Your task to perform on an android device: What is the news today? Image 0: 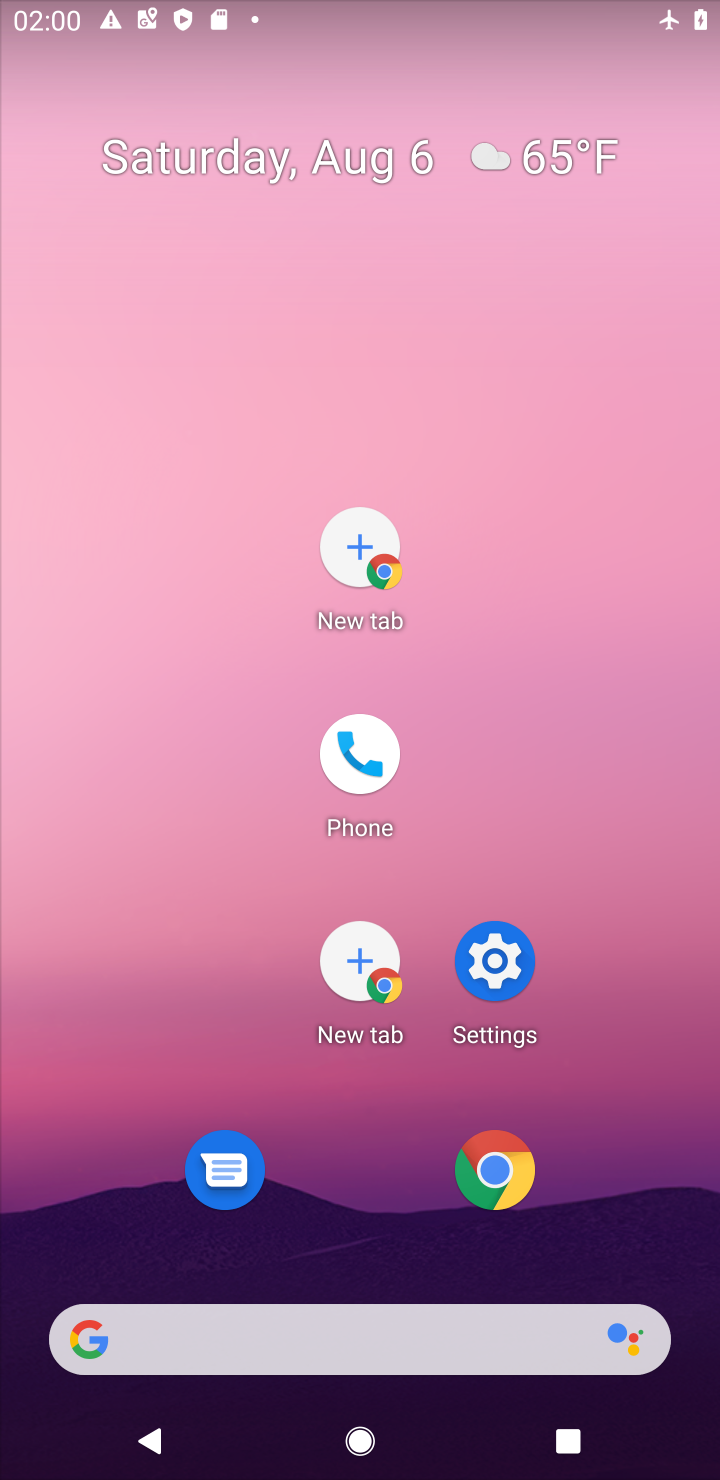
Step 0: click (340, 1360)
Your task to perform on an android device: What is the news today? Image 1: 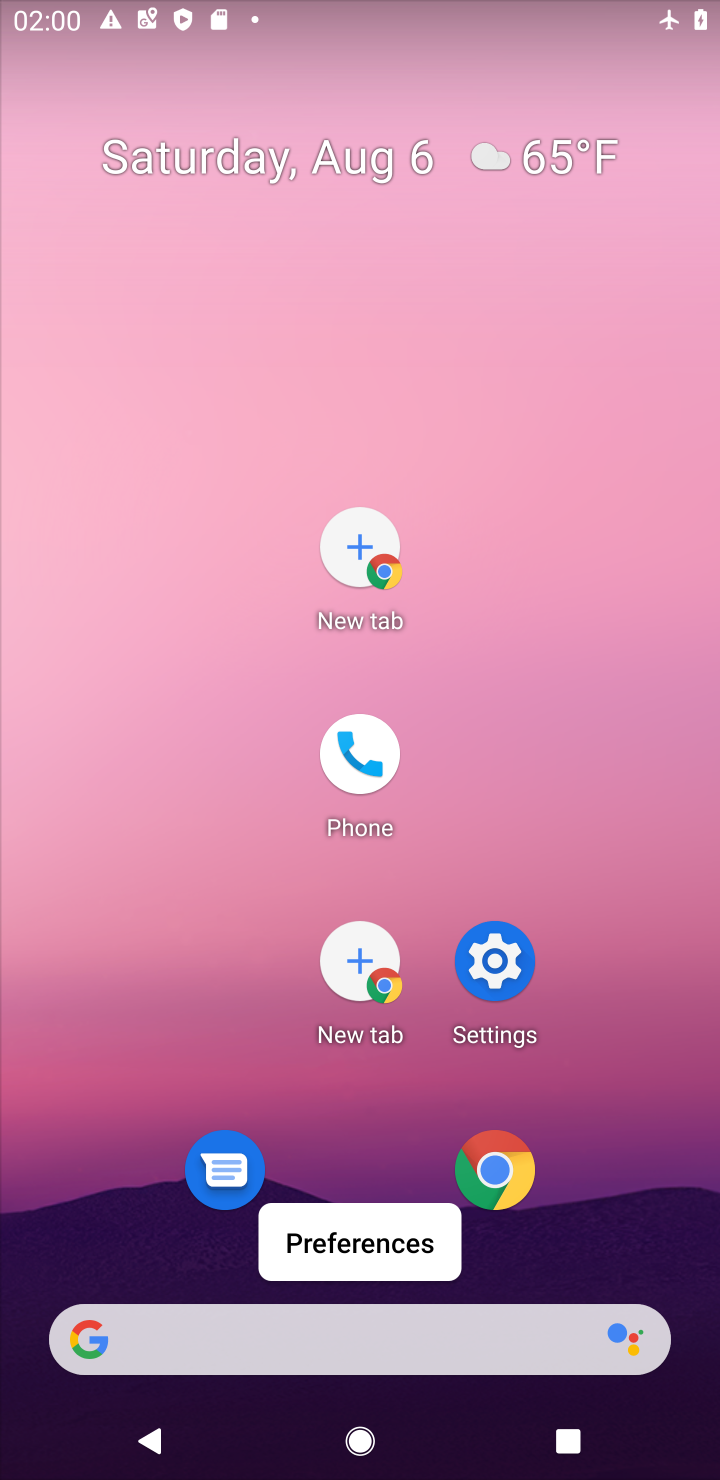
Step 1: click (380, 1329)
Your task to perform on an android device: What is the news today? Image 2: 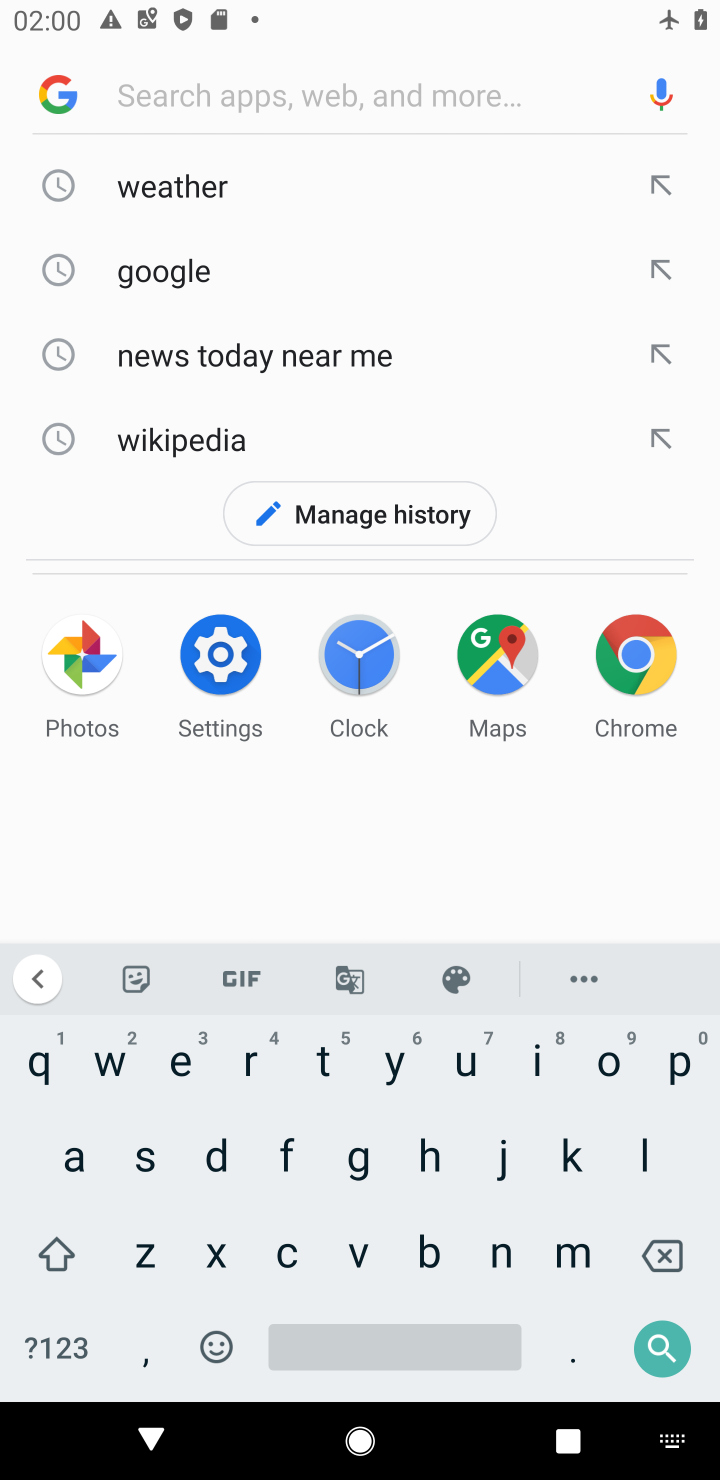
Step 2: click (316, 1062)
Your task to perform on an android device: What is the news today? Image 3: 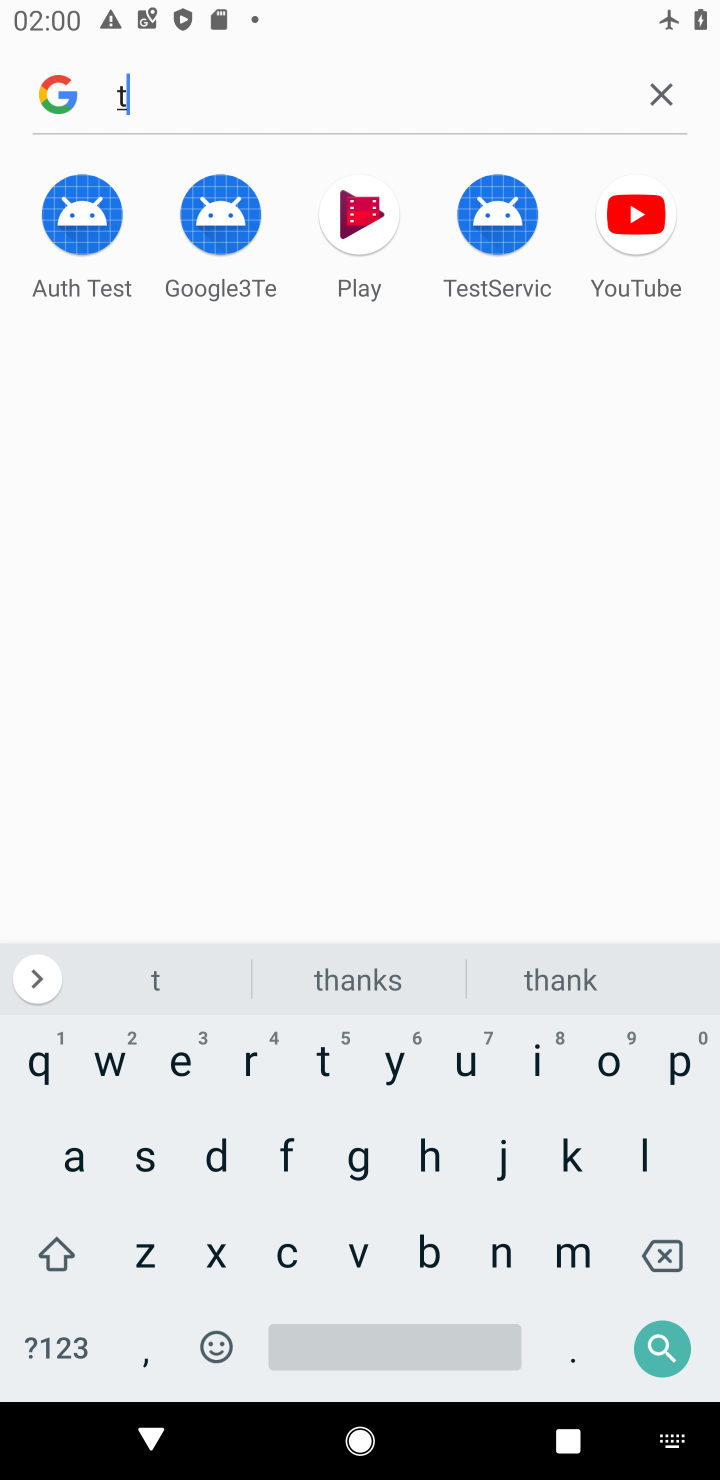
Step 3: click (615, 1056)
Your task to perform on an android device: What is the news today? Image 4: 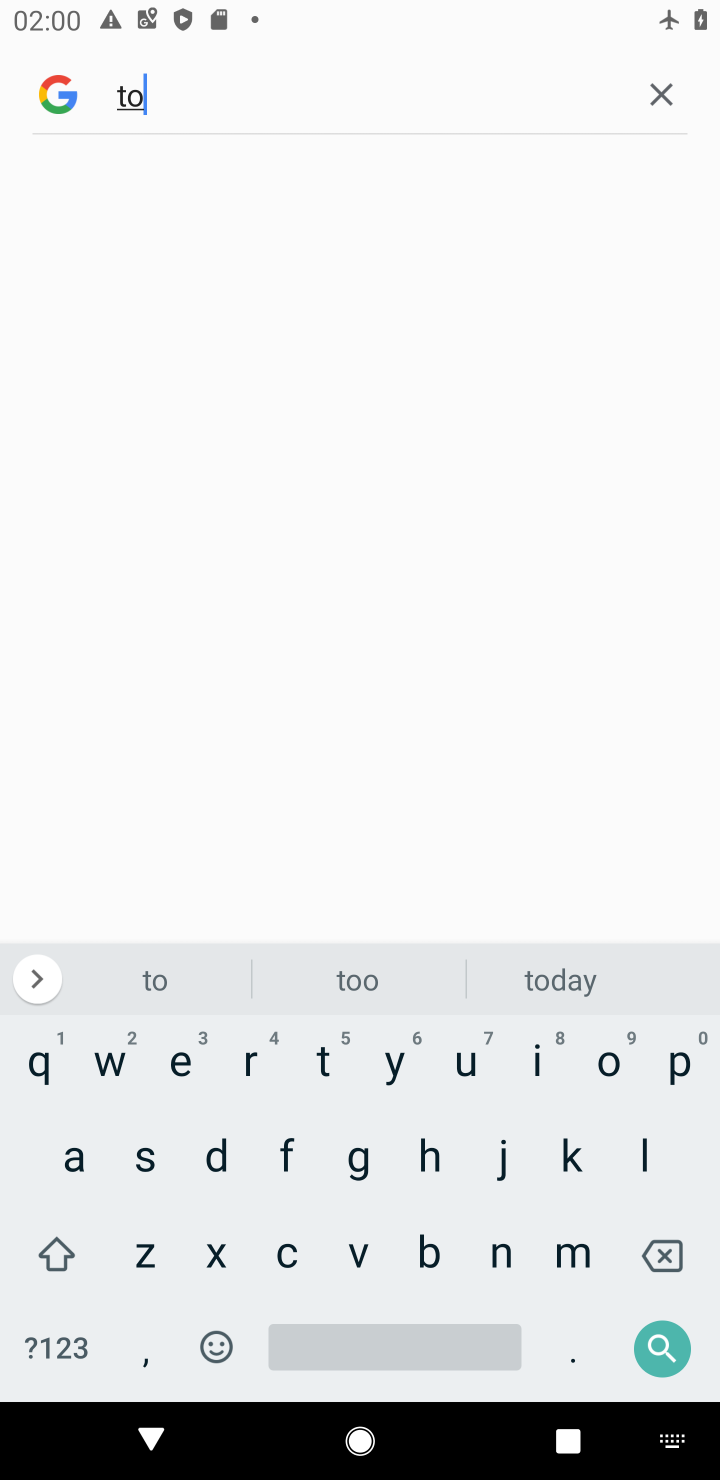
Step 4: click (222, 1160)
Your task to perform on an android device: What is the news today? Image 5: 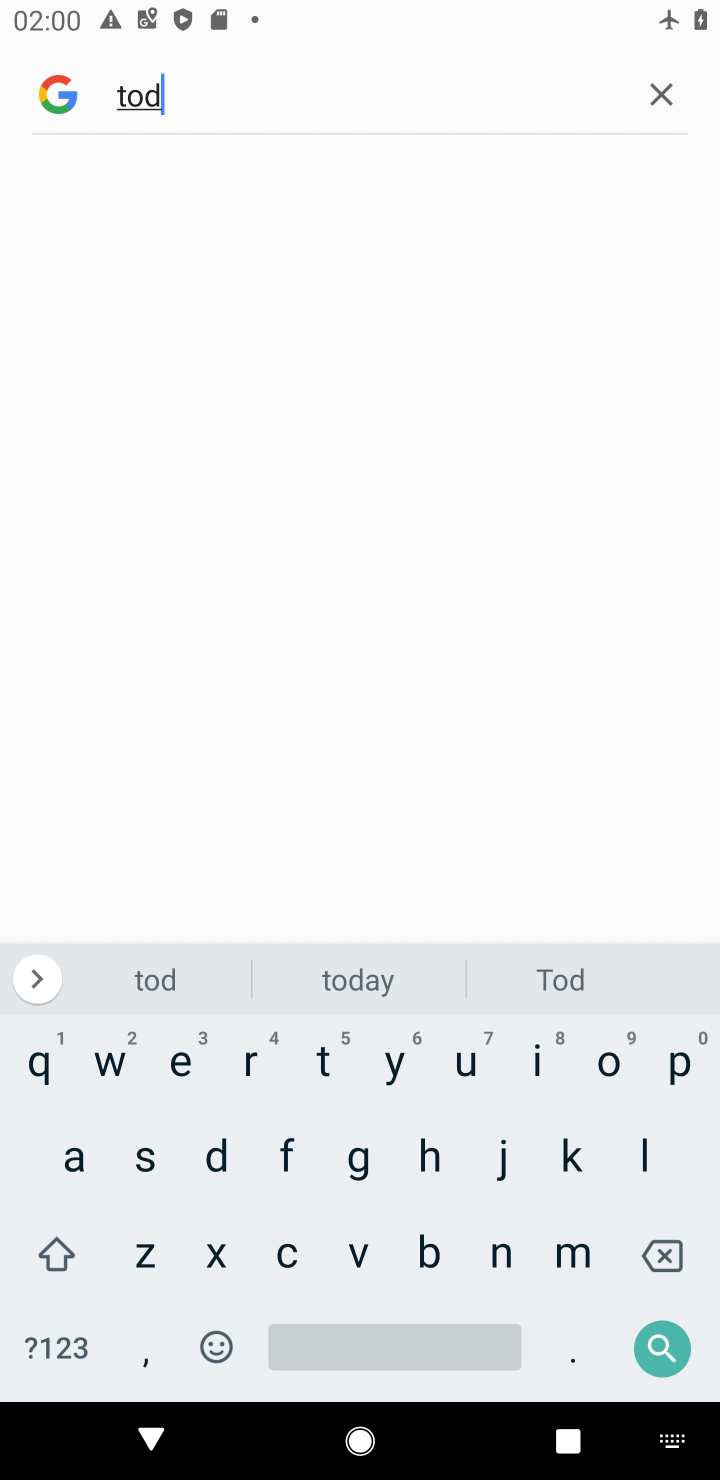
Step 5: click (67, 1145)
Your task to perform on an android device: What is the news today? Image 6: 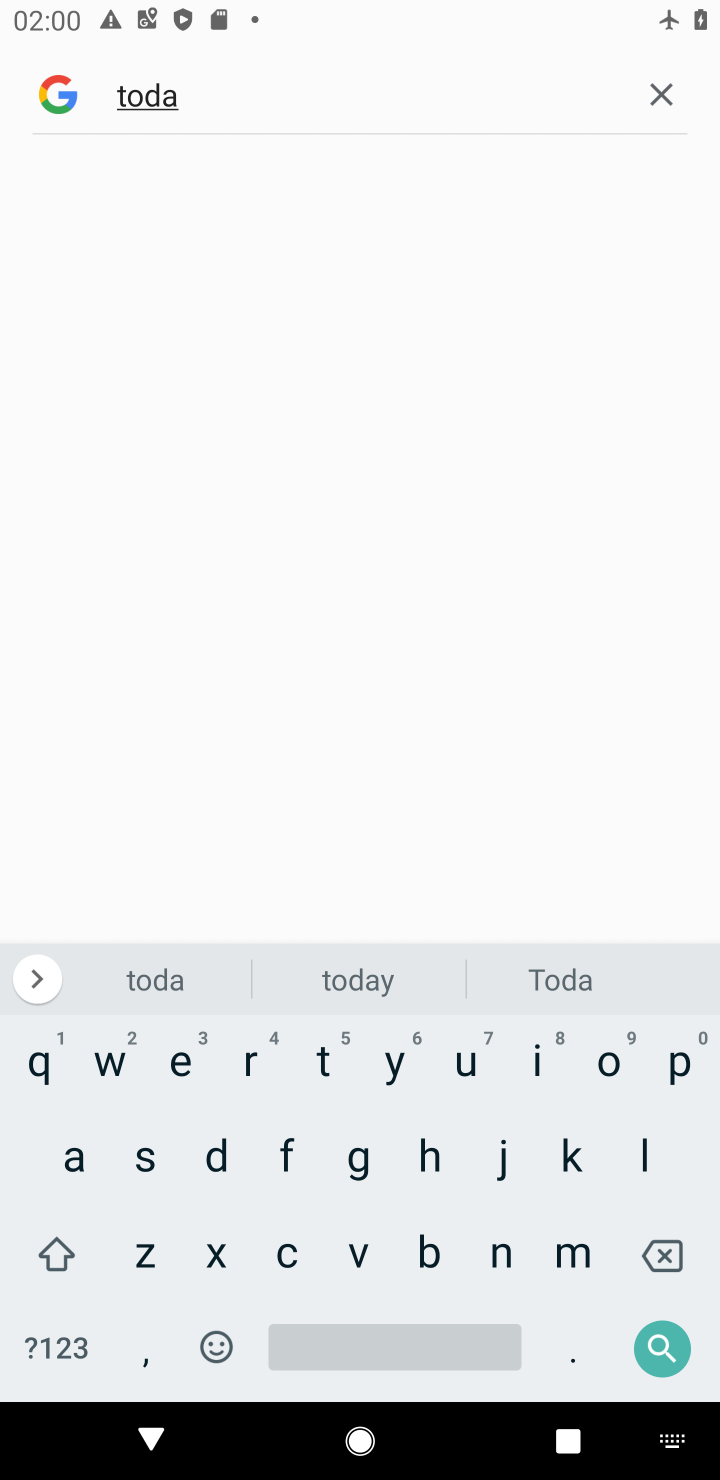
Step 6: click (394, 1064)
Your task to perform on an android device: What is the news today? Image 7: 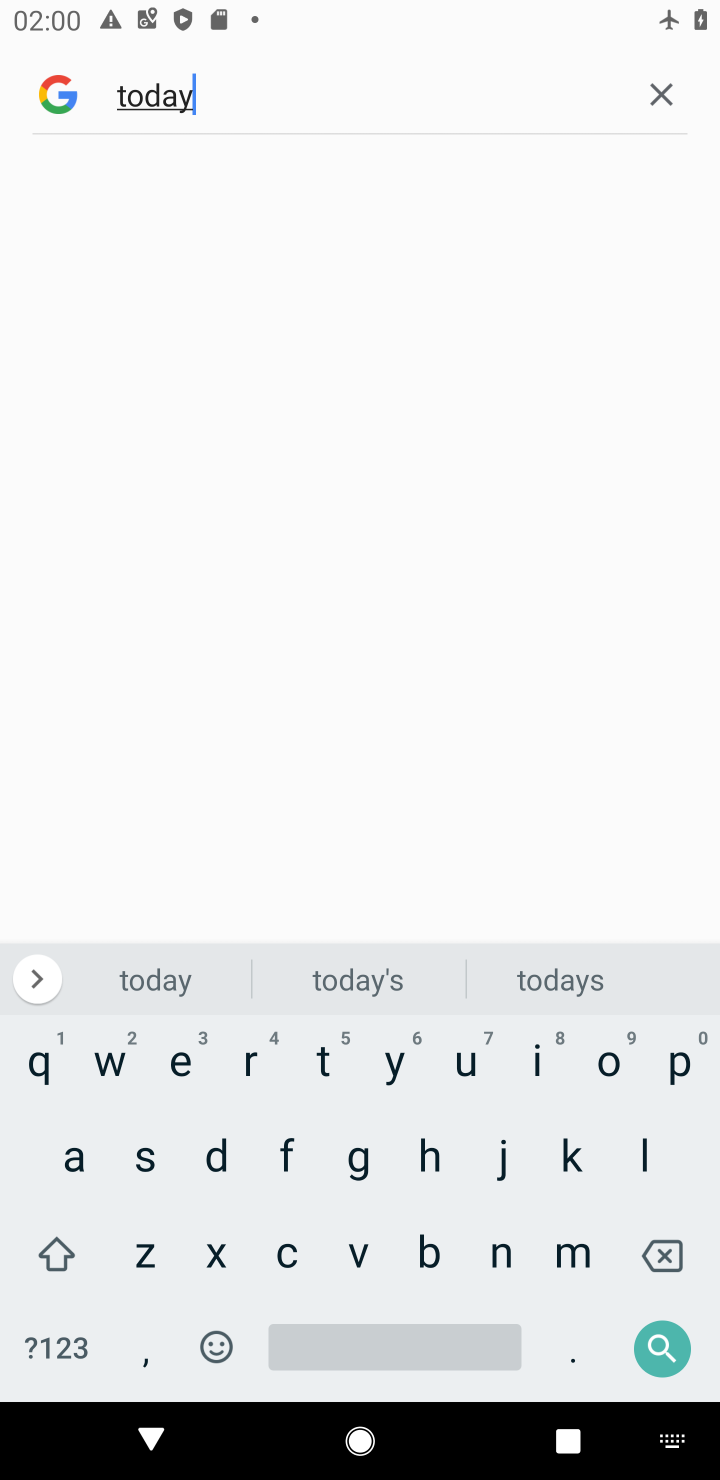
Step 7: click (454, 1334)
Your task to perform on an android device: What is the news today? Image 8: 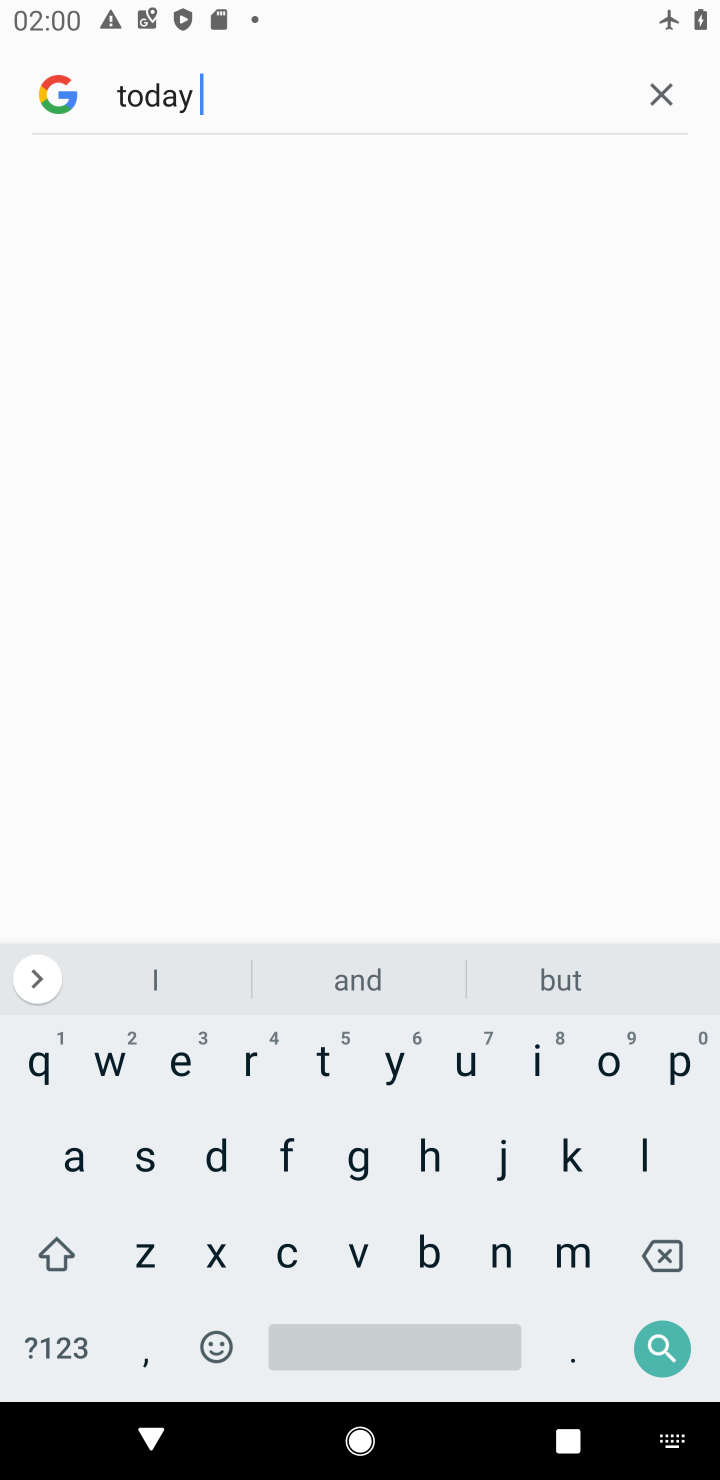
Step 8: click (504, 1260)
Your task to perform on an android device: What is the news today? Image 9: 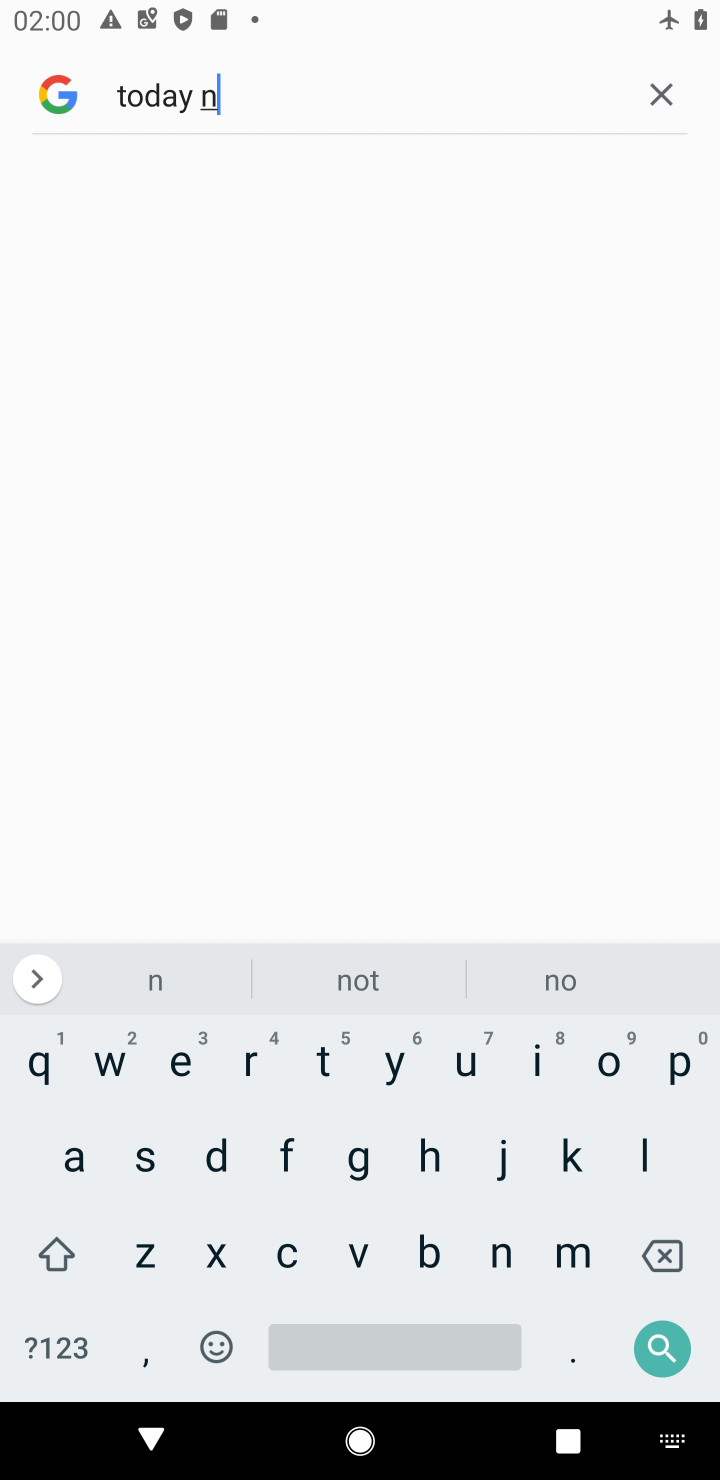
Step 9: click (187, 1072)
Your task to perform on an android device: What is the news today? Image 10: 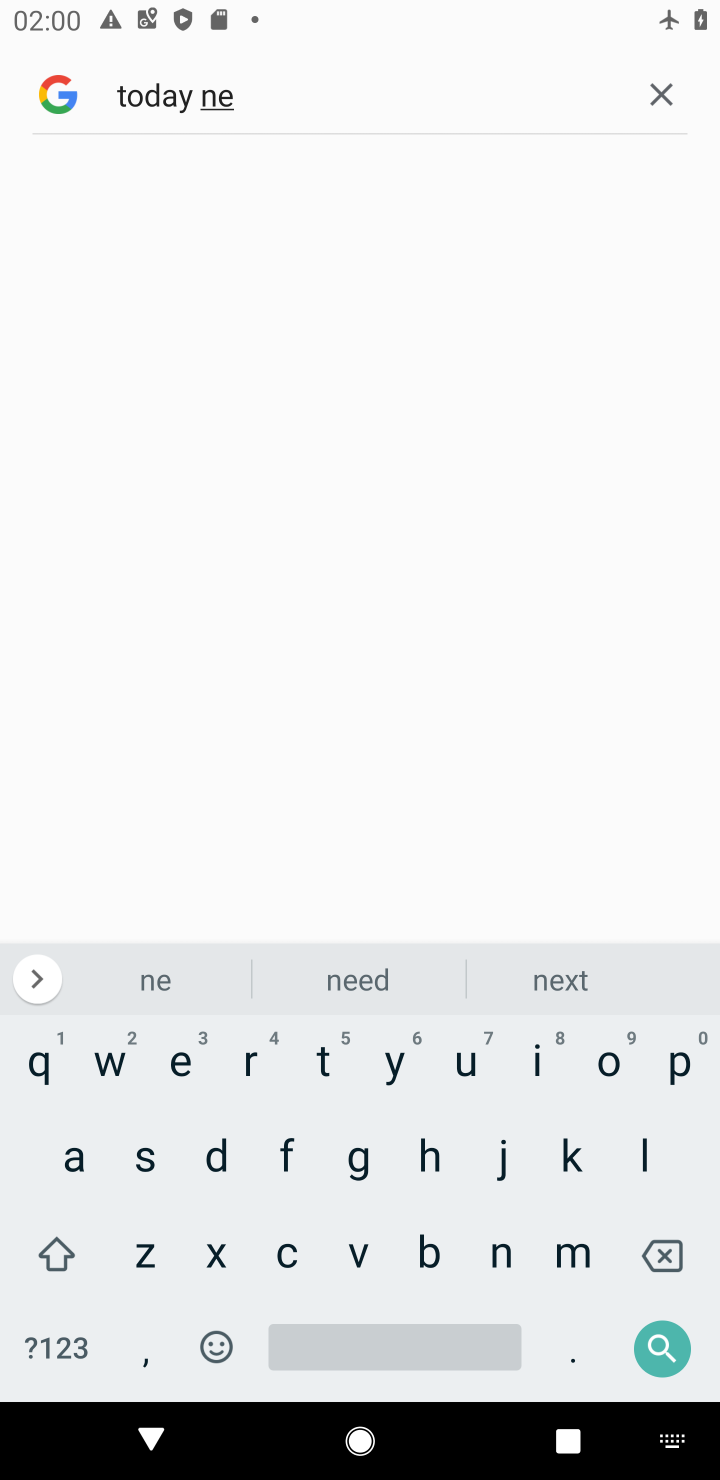
Step 10: click (114, 1048)
Your task to perform on an android device: What is the news today? Image 11: 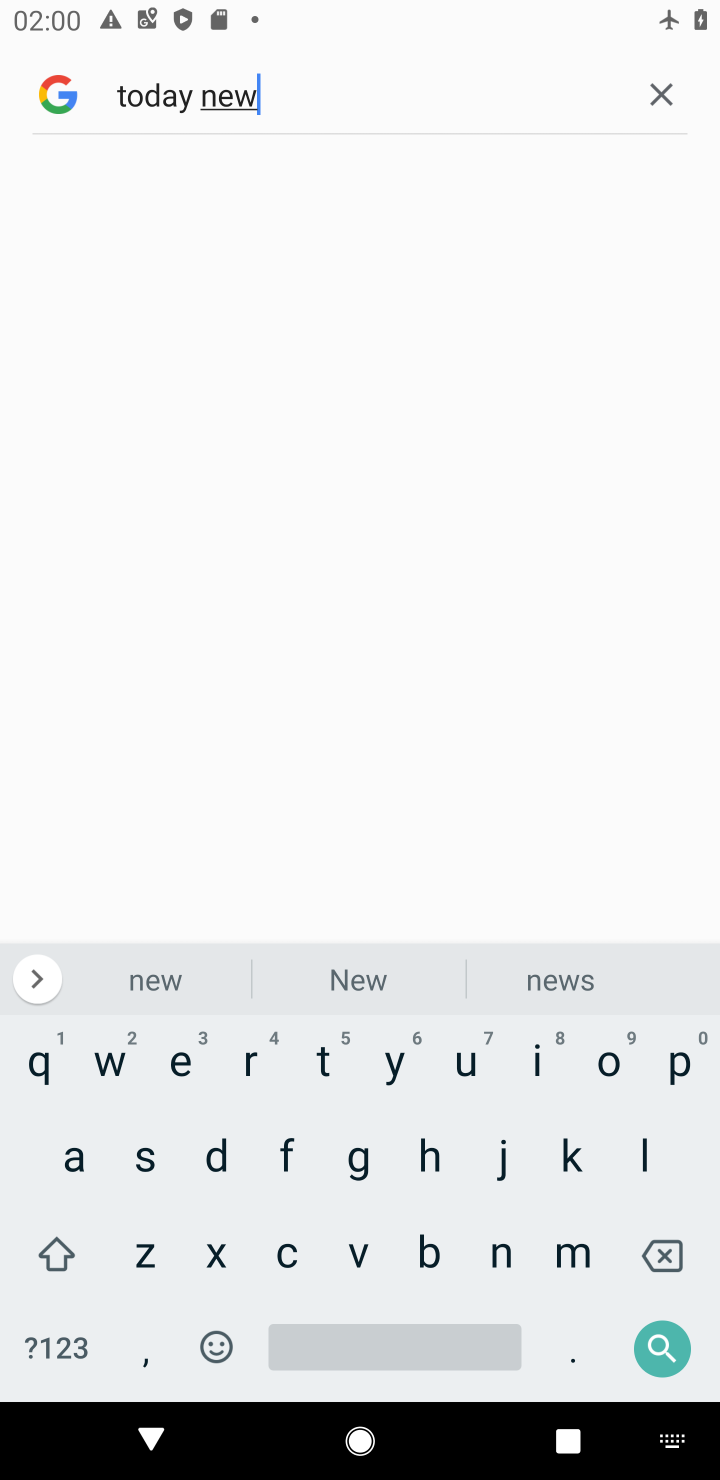
Step 11: click (150, 1144)
Your task to perform on an android device: What is the news today? Image 12: 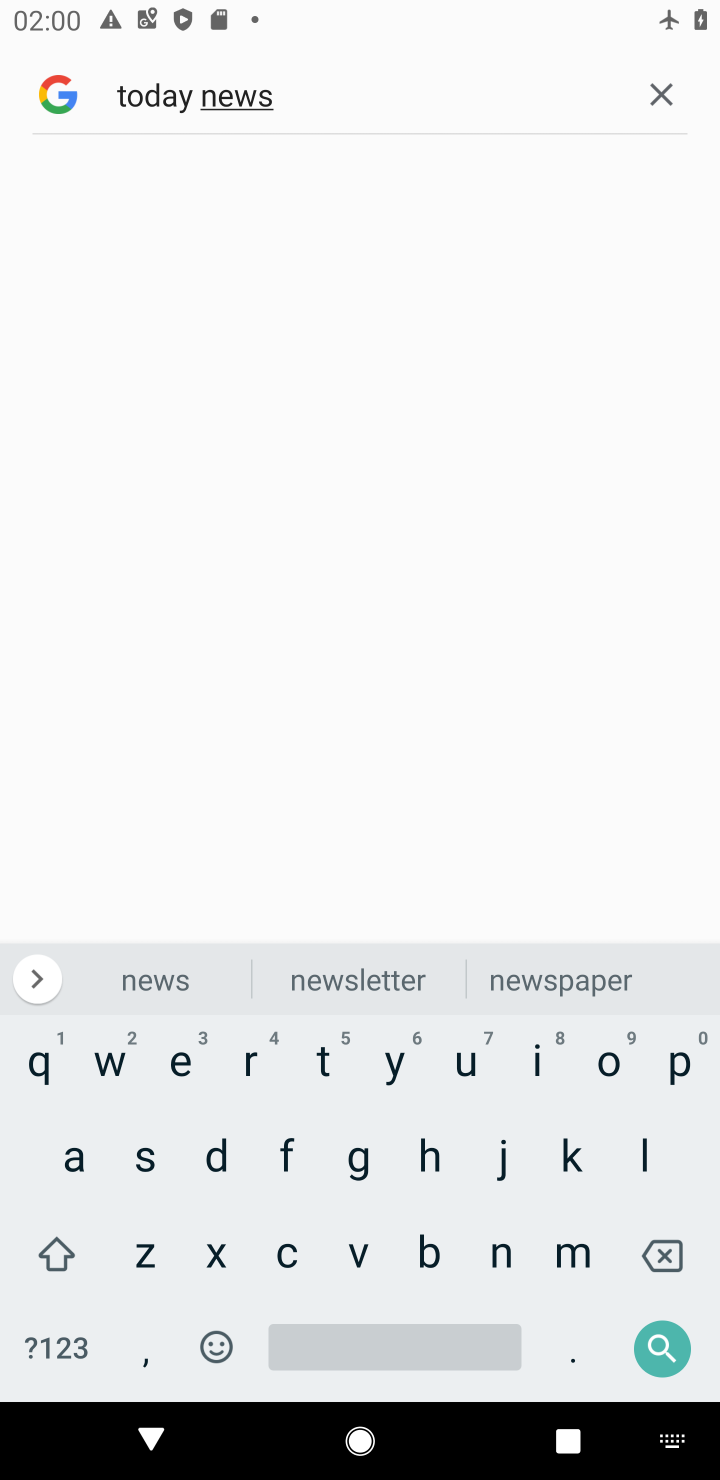
Step 12: click (649, 1355)
Your task to perform on an android device: What is the news today? Image 13: 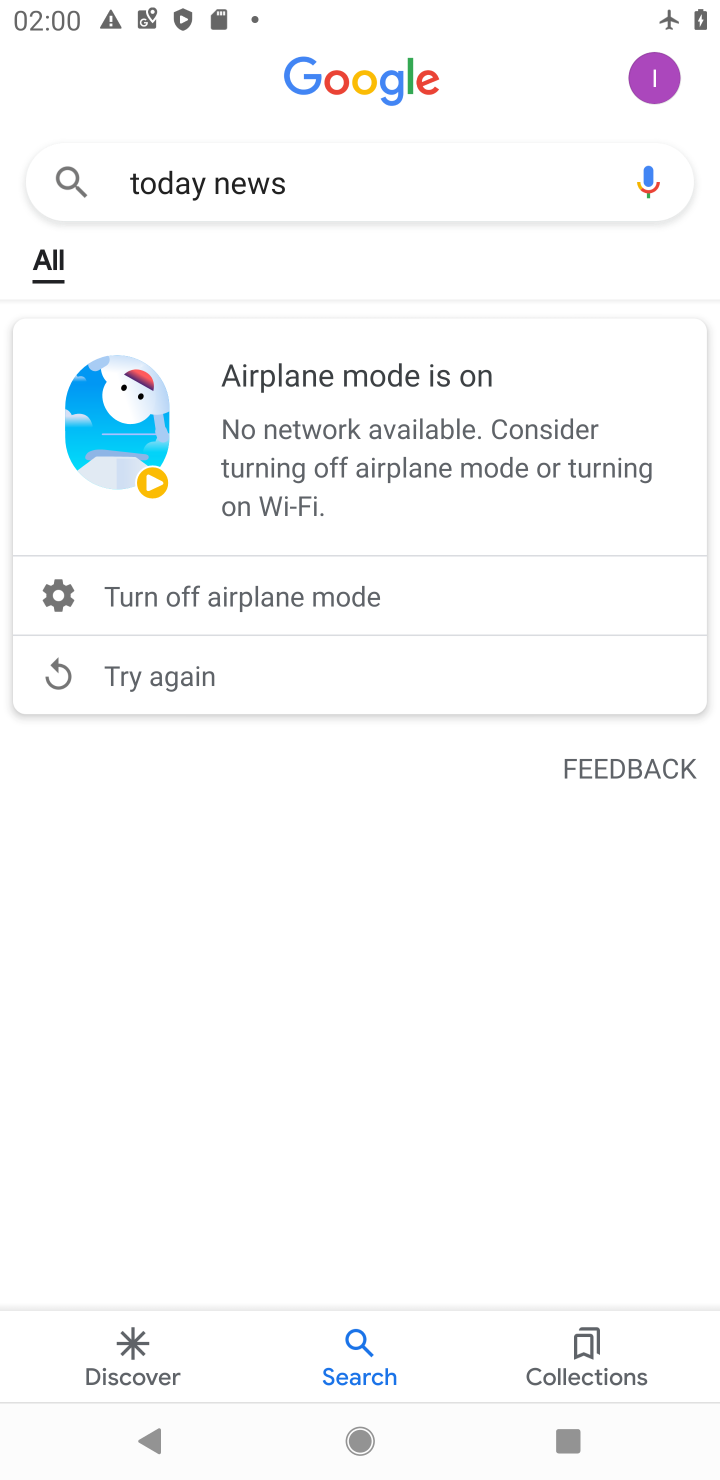
Step 13: click (668, 9)
Your task to perform on an android device: What is the news today? Image 14: 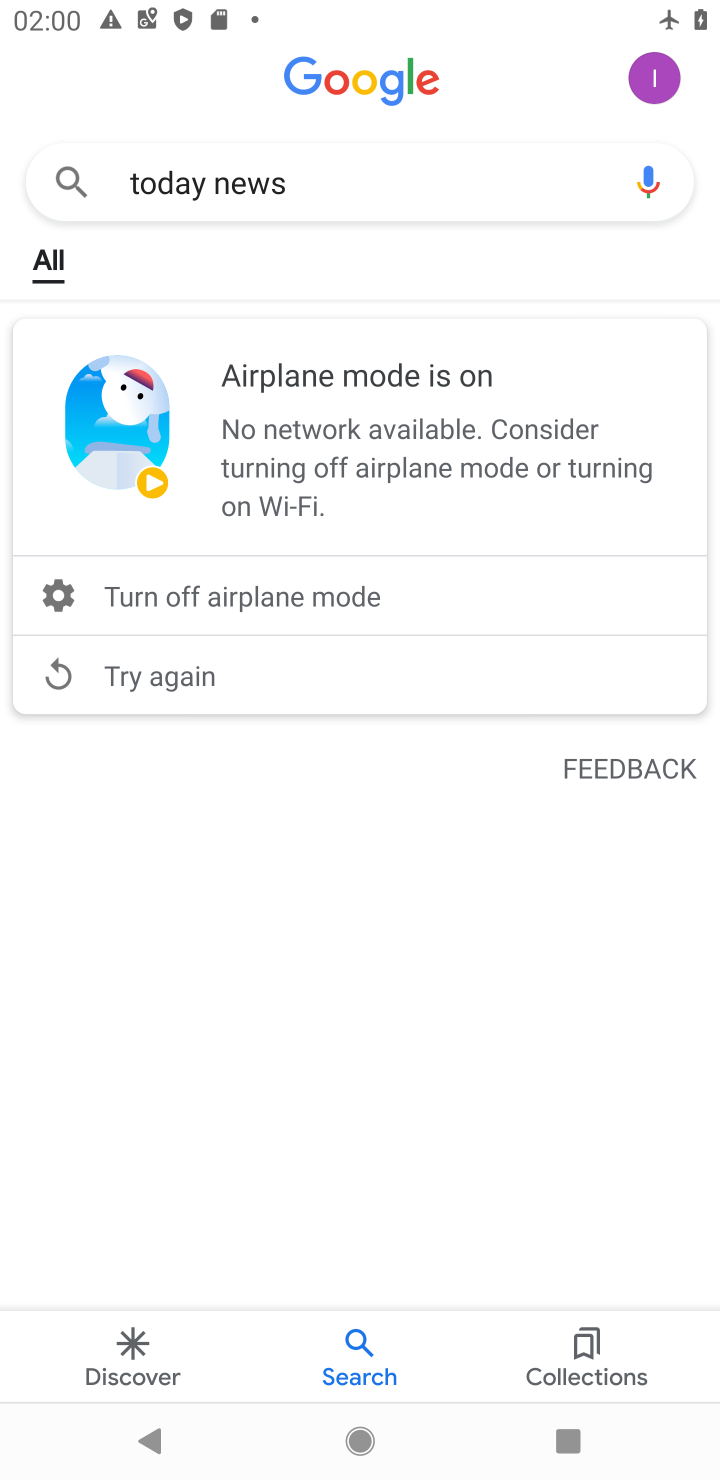
Step 14: click (672, 13)
Your task to perform on an android device: What is the news today? Image 15: 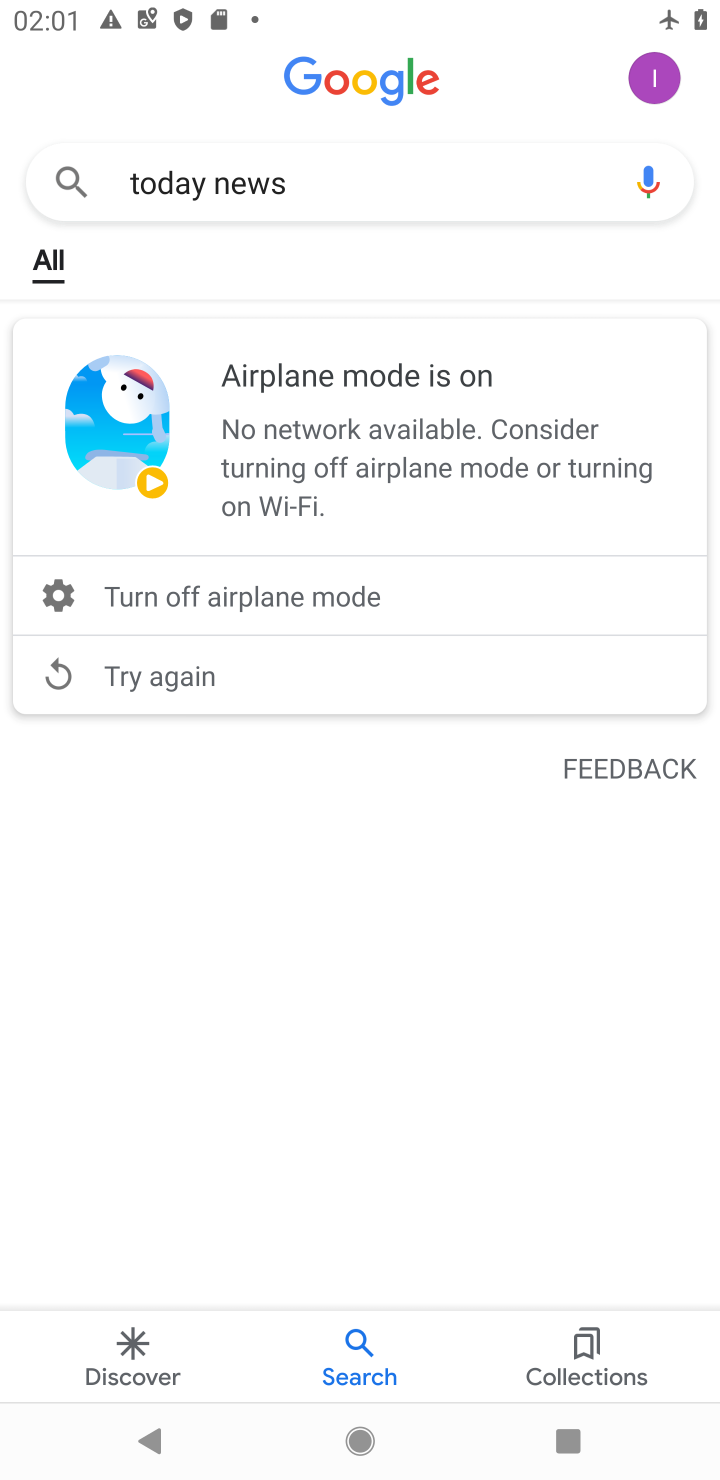
Step 15: click (280, 904)
Your task to perform on an android device: What is the news today? Image 16: 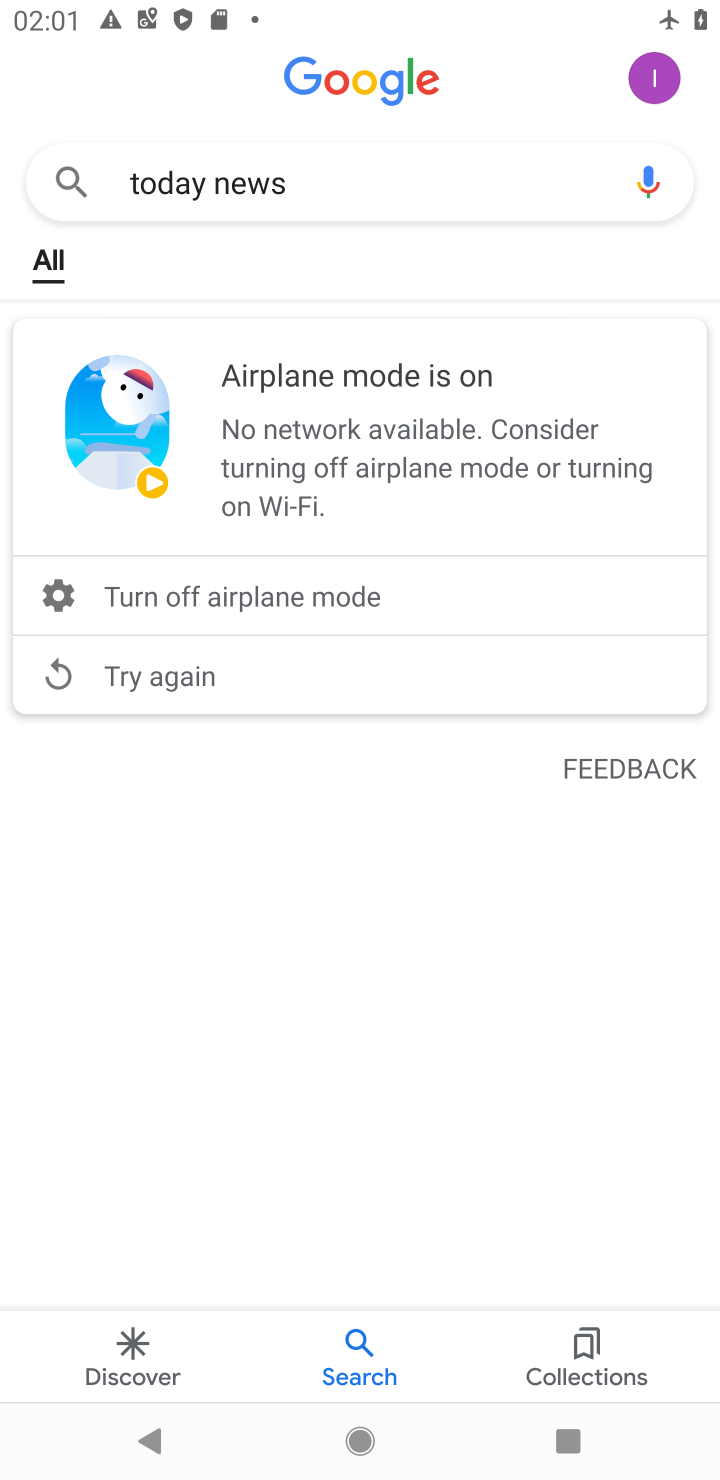
Step 16: click (324, 601)
Your task to perform on an android device: What is the news today? Image 17: 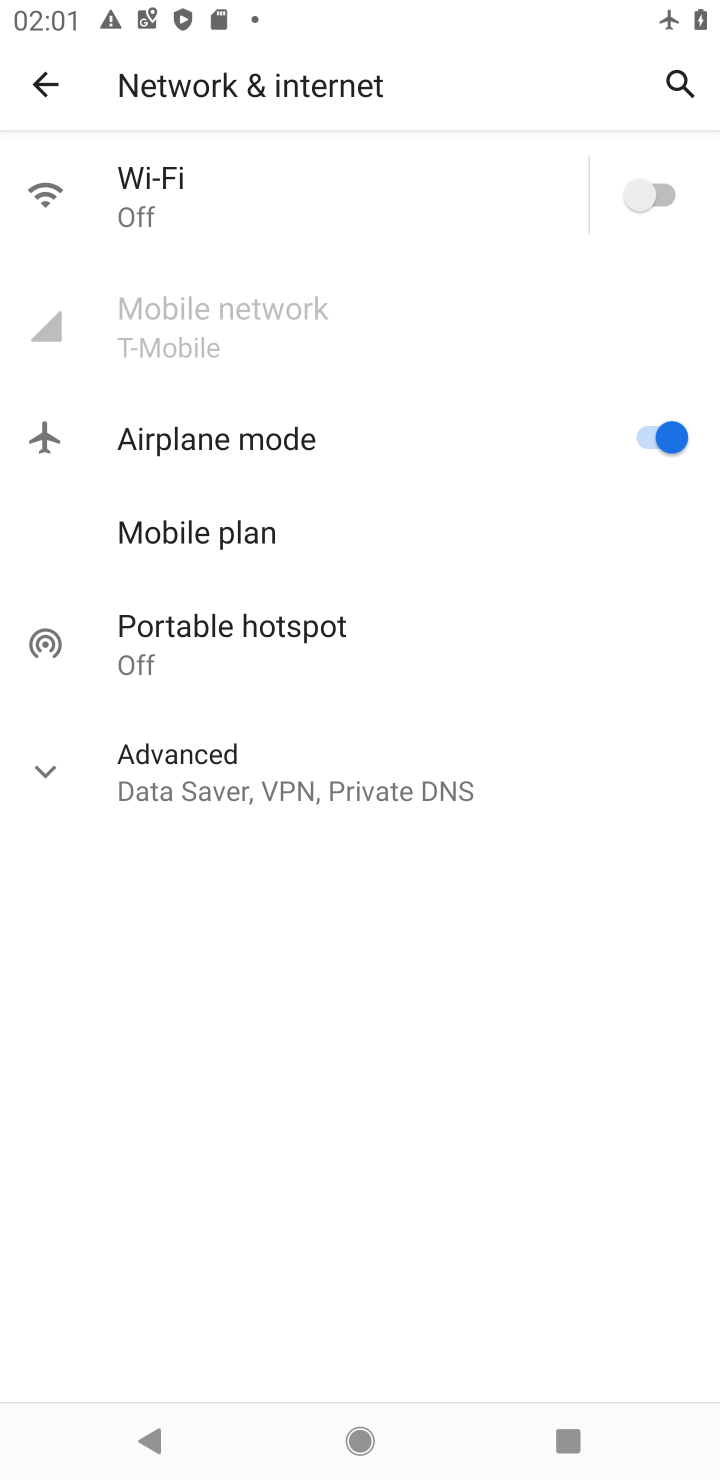
Step 17: click (668, 442)
Your task to perform on an android device: What is the news today? Image 18: 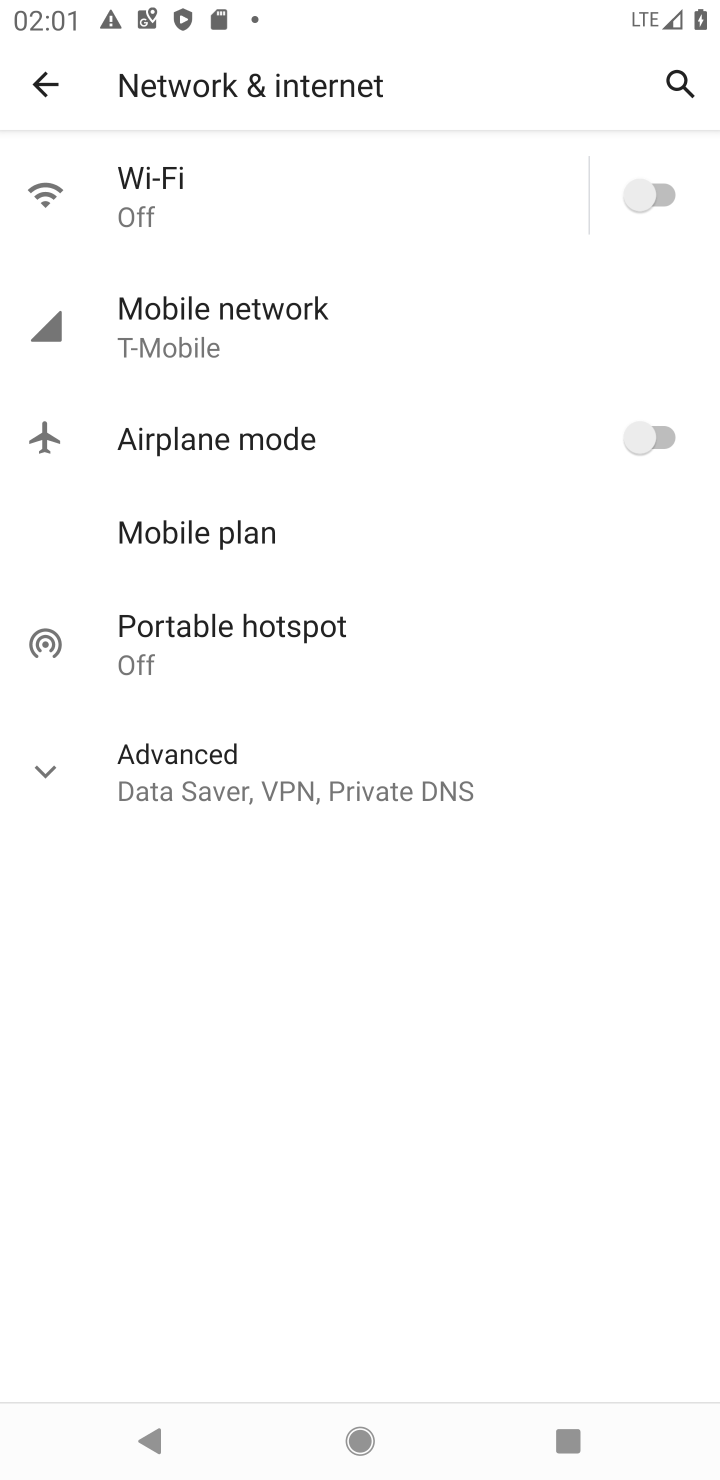
Step 18: click (362, 1422)
Your task to perform on an android device: What is the news today? Image 19: 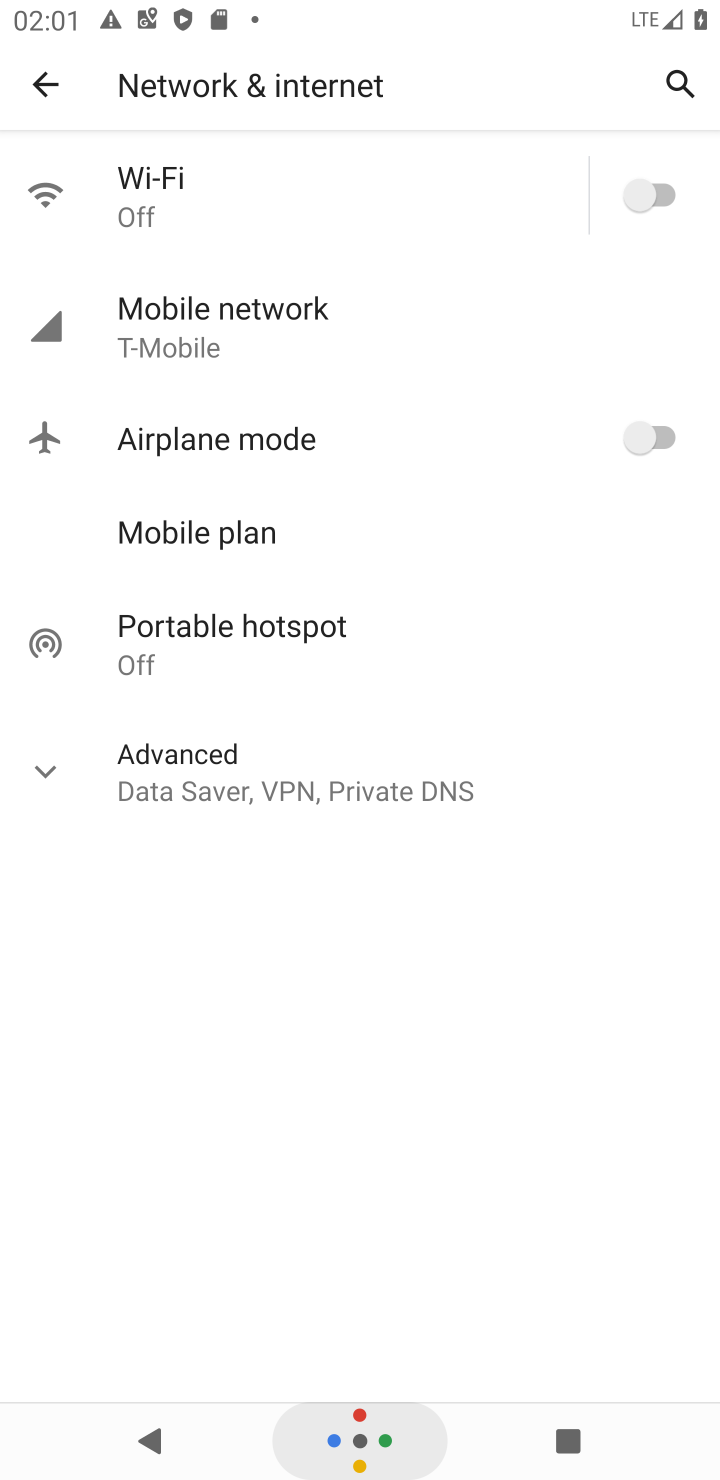
Step 19: click (362, 1422)
Your task to perform on an android device: What is the news today? Image 20: 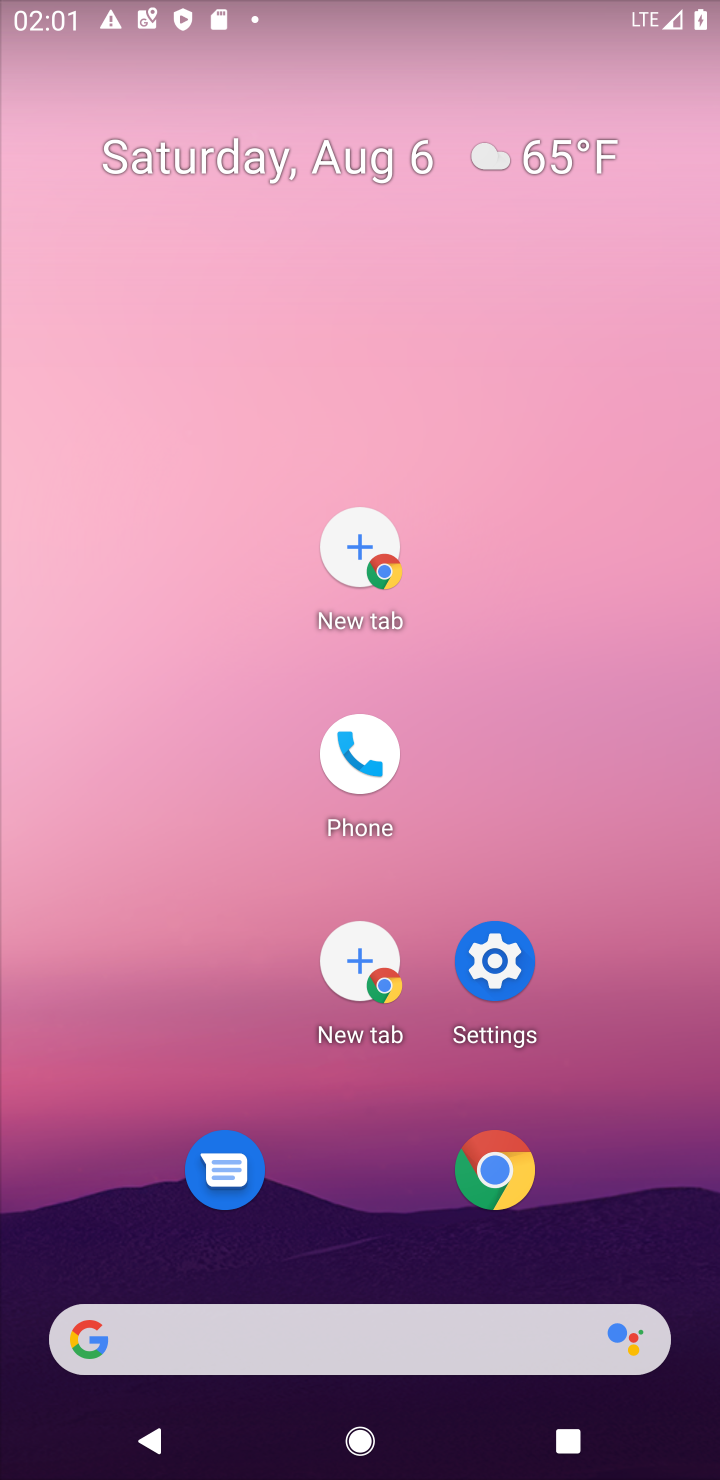
Step 20: click (455, 1359)
Your task to perform on an android device: What is the news today? Image 21: 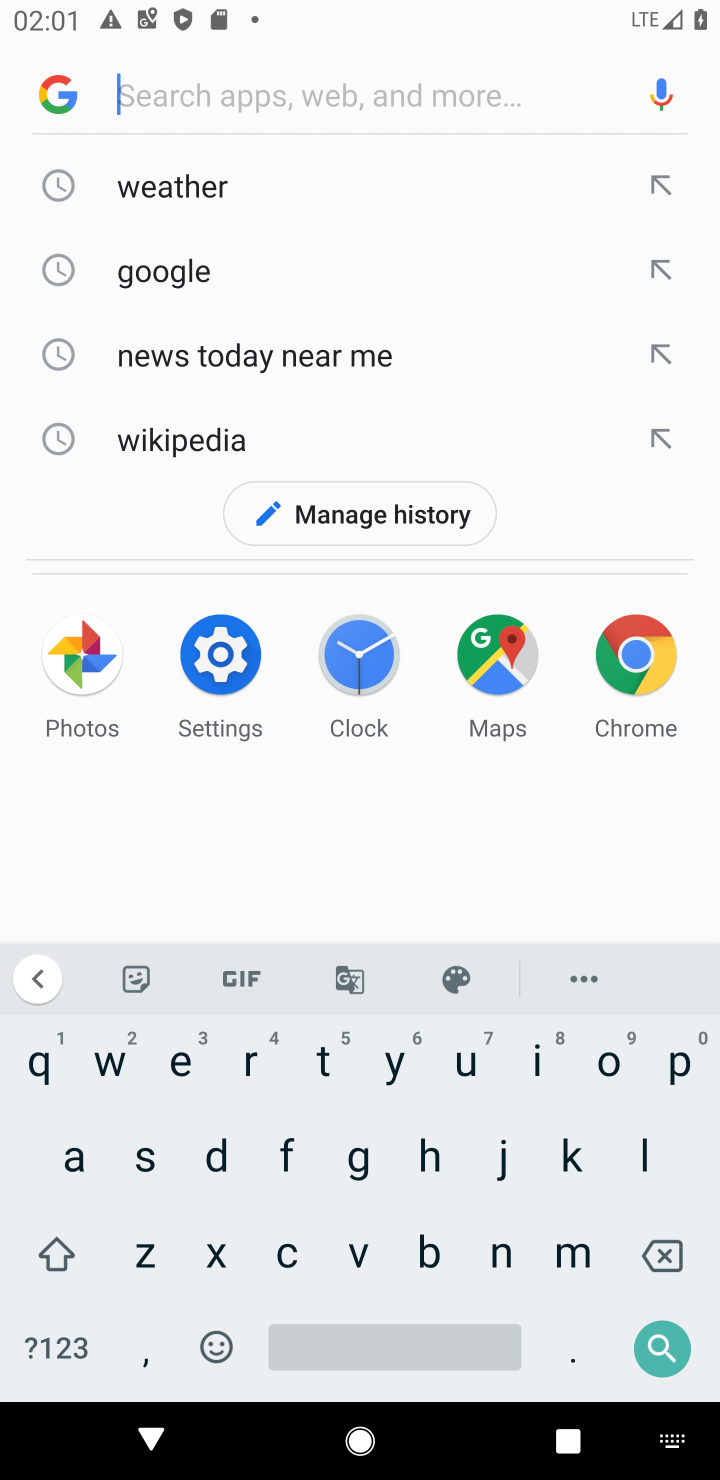
Step 21: click (323, 1059)
Your task to perform on an android device: What is the news today? Image 22: 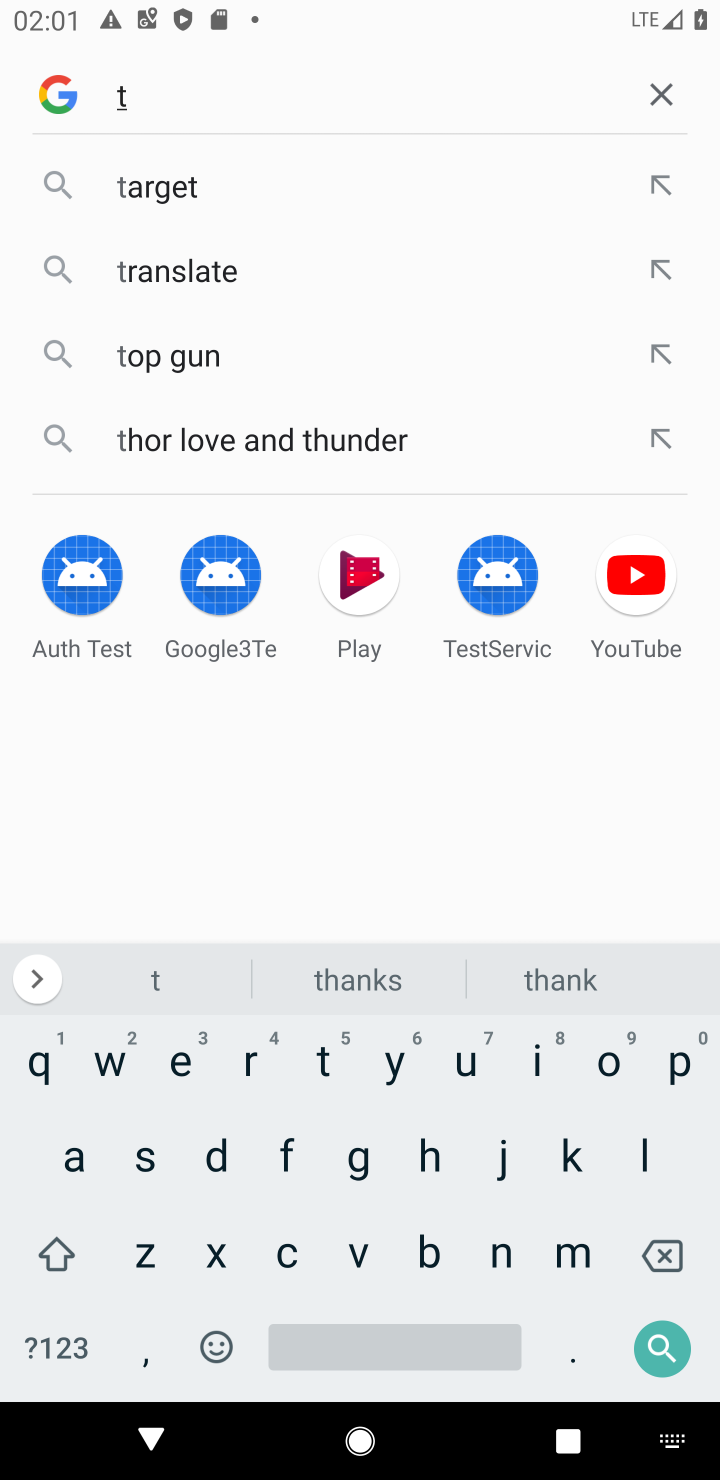
Step 22: click (617, 1060)
Your task to perform on an android device: What is the news today? Image 23: 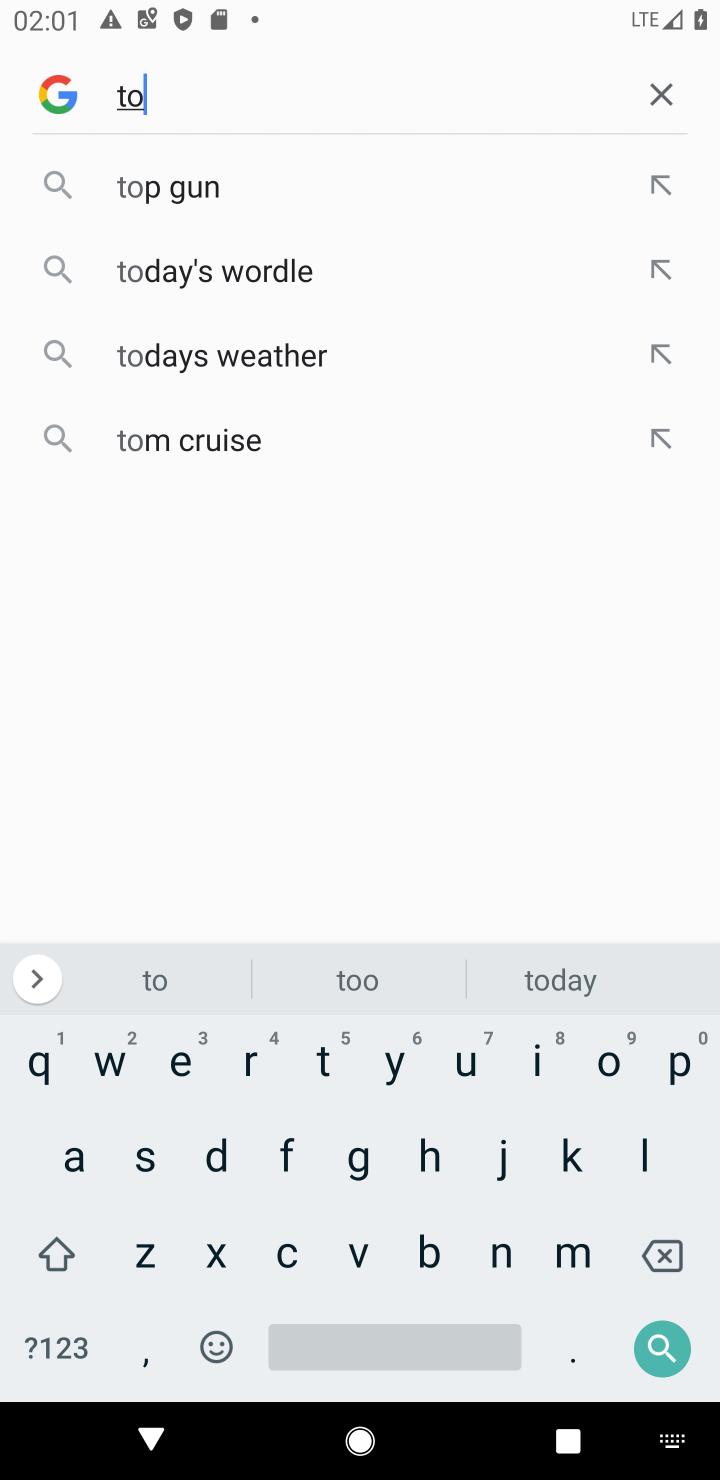
Step 23: click (212, 1156)
Your task to perform on an android device: What is the news today? Image 24: 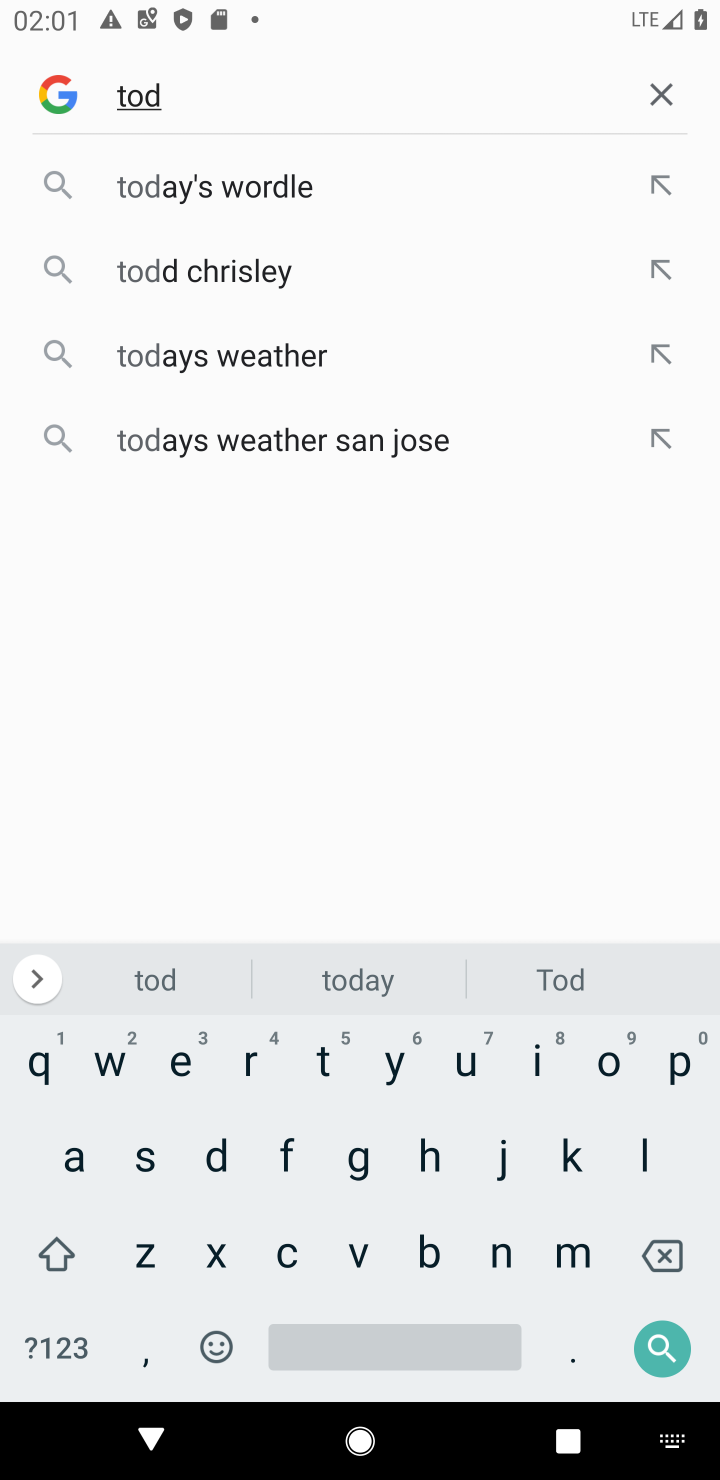
Step 24: click (70, 1147)
Your task to perform on an android device: What is the news today? Image 25: 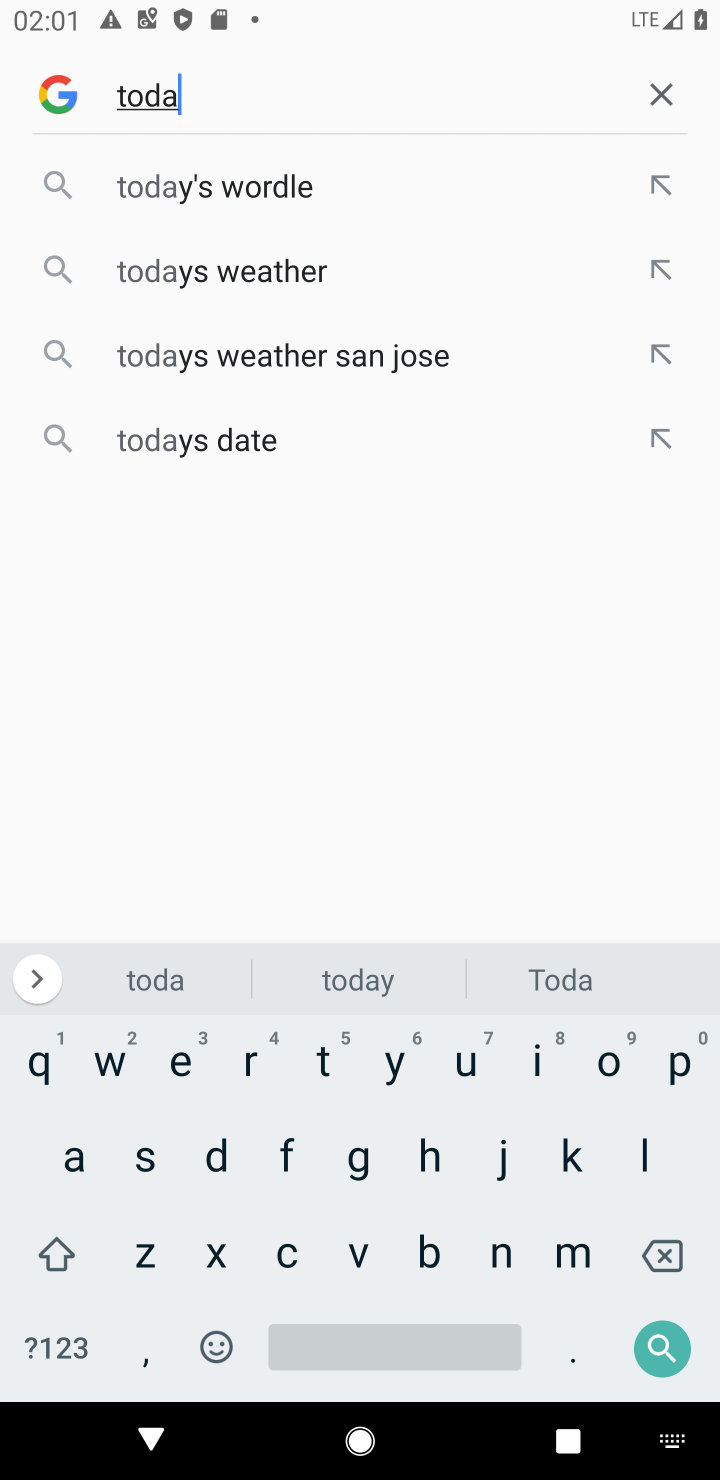
Step 25: click (394, 1063)
Your task to perform on an android device: What is the news today? Image 26: 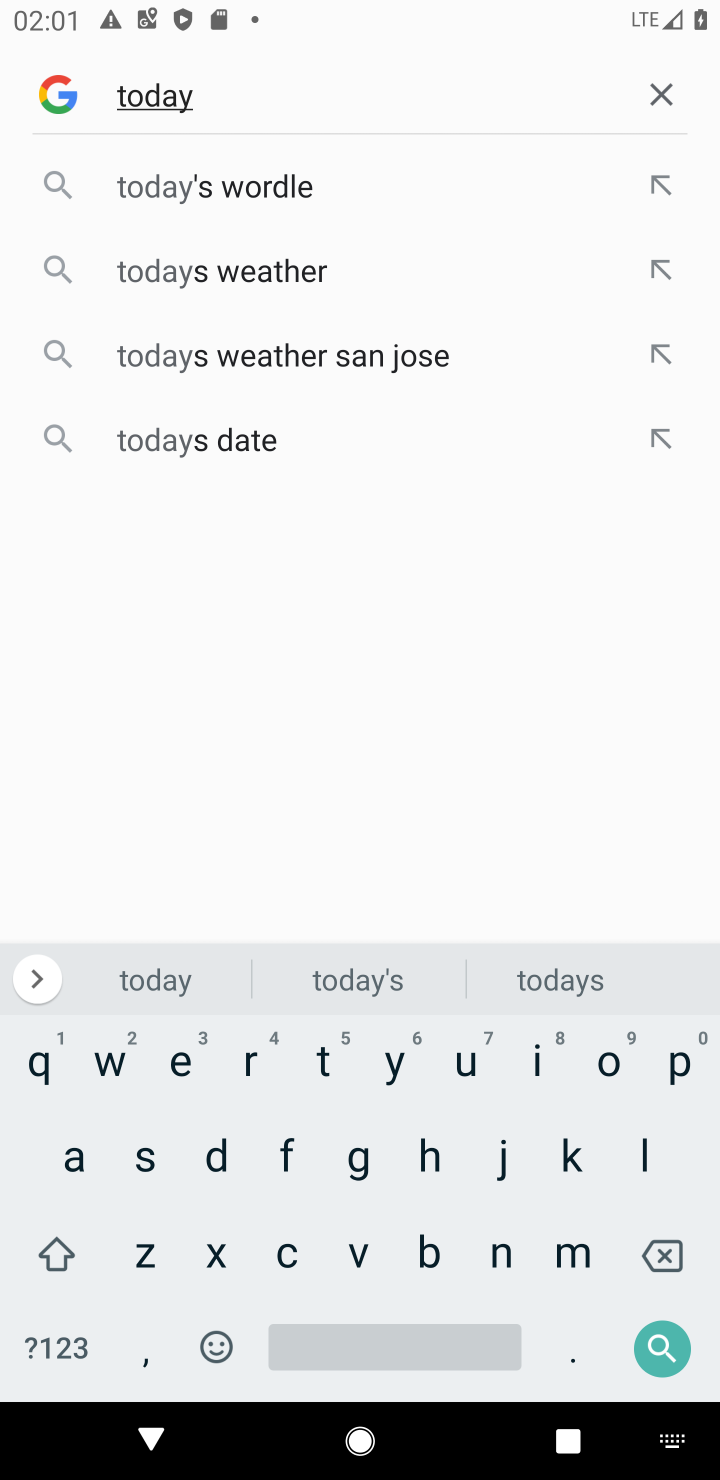
Step 26: click (351, 1344)
Your task to perform on an android device: What is the news today? Image 27: 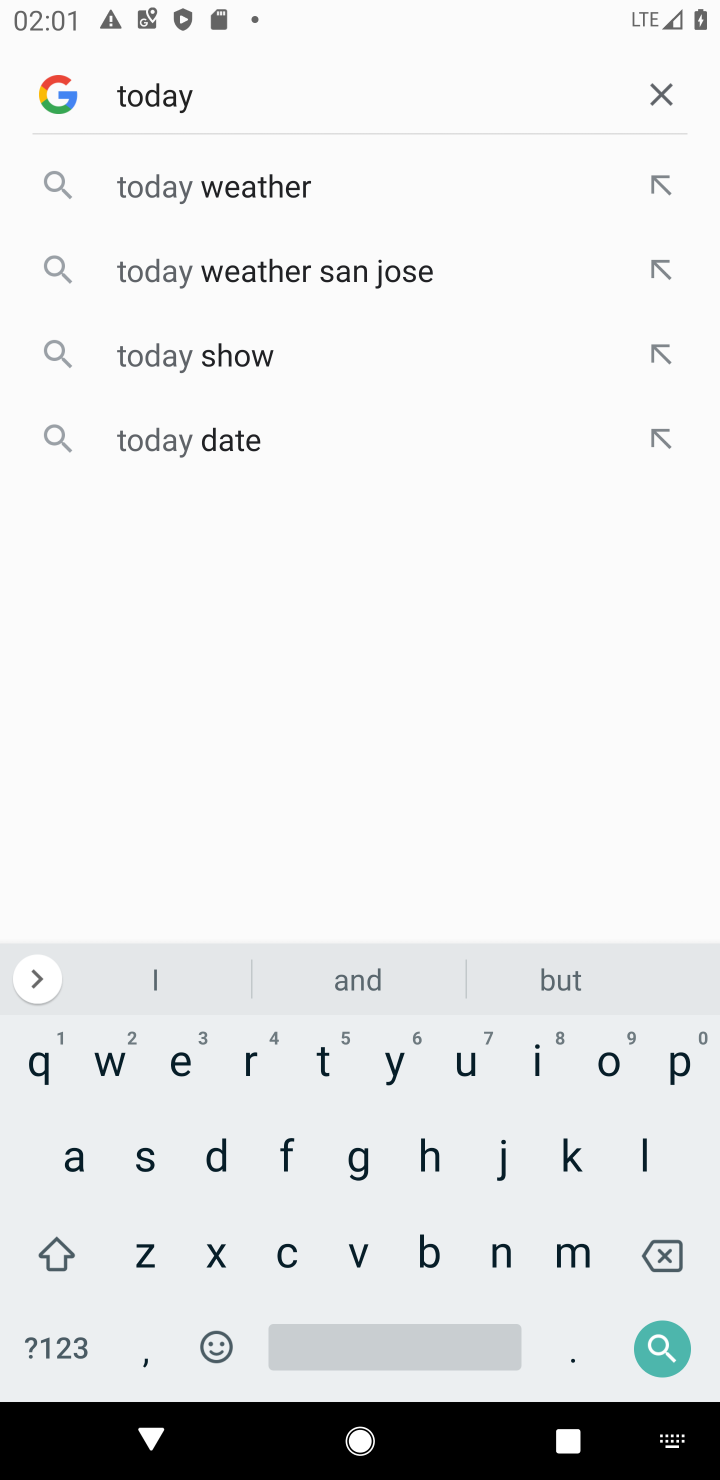
Step 27: click (500, 1245)
Your task to perform on an android device: What is the news today? Image 28: 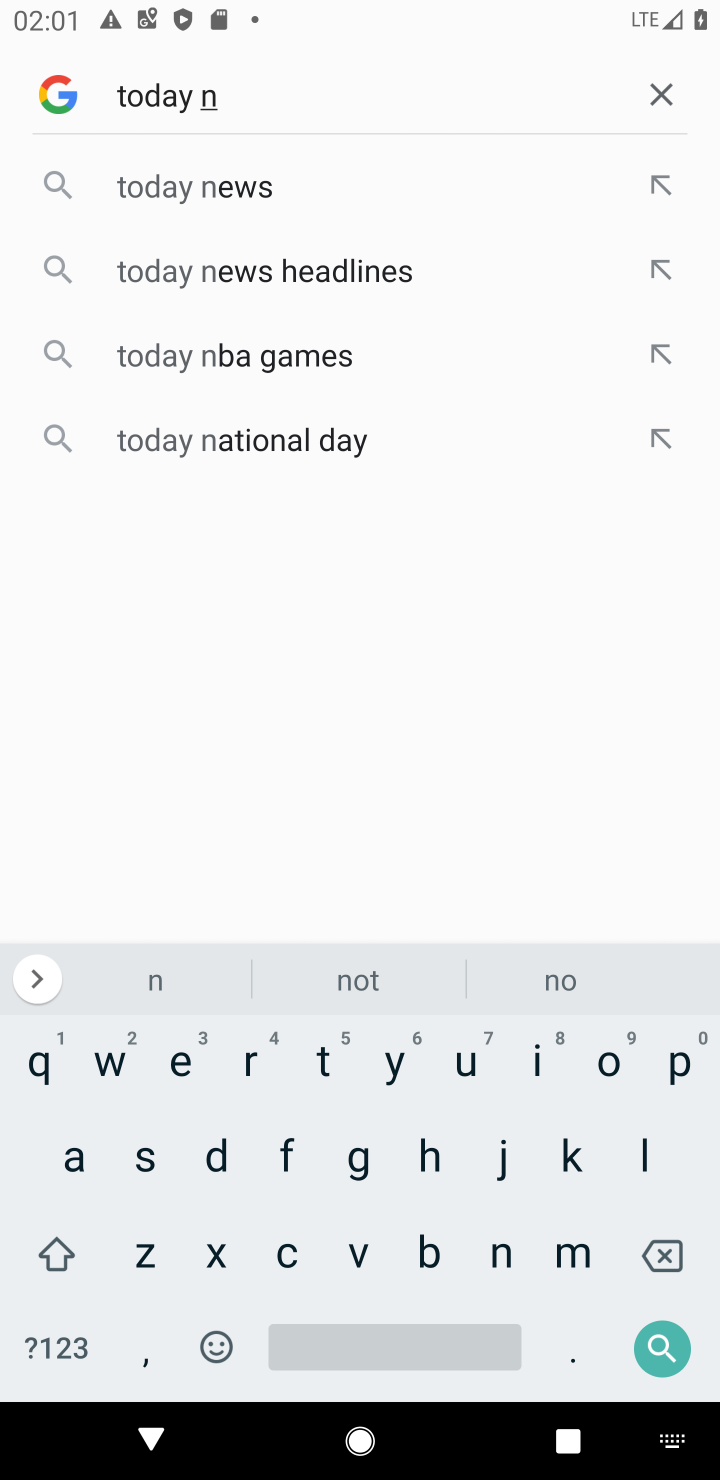
Step 28: click (279, 192)
Your task to perform on an android device: What is the news today? Image 29: 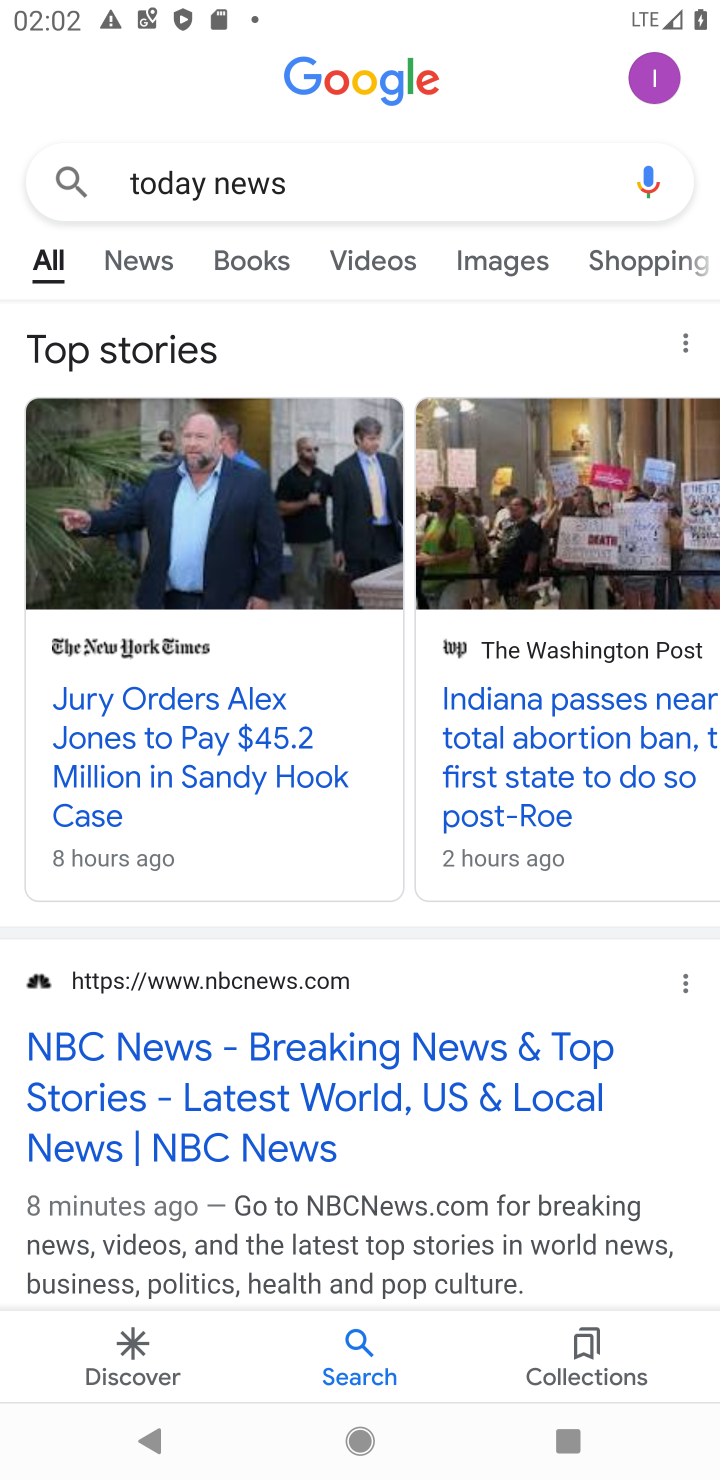
Step 29: task complete